Your task to perform on an android device: search for starred emails in the gmail app Image 0: 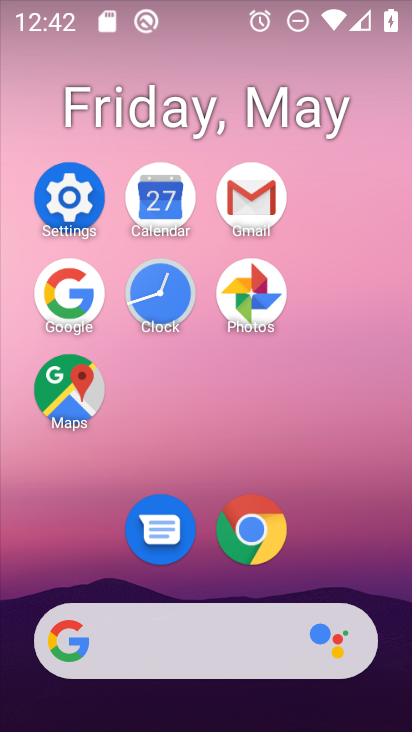
Step 0: click (241, 173)
Your task to perform on an android device: search for starred emails in the gmail app Image 1: 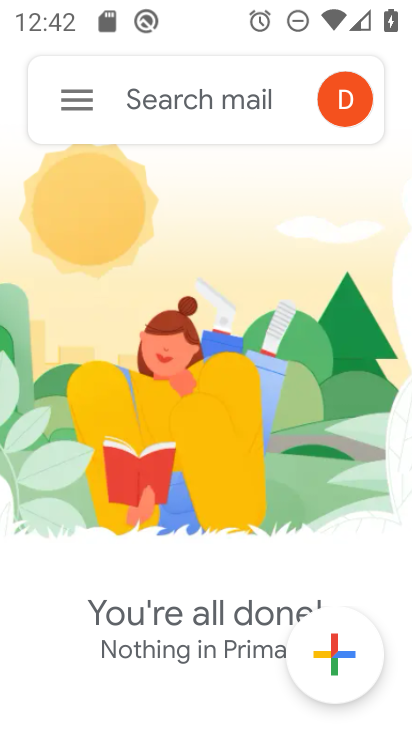
Step 1: click (85, 112)
Your task to perform on an android device: search for starred emails in the gmail app Image 2: 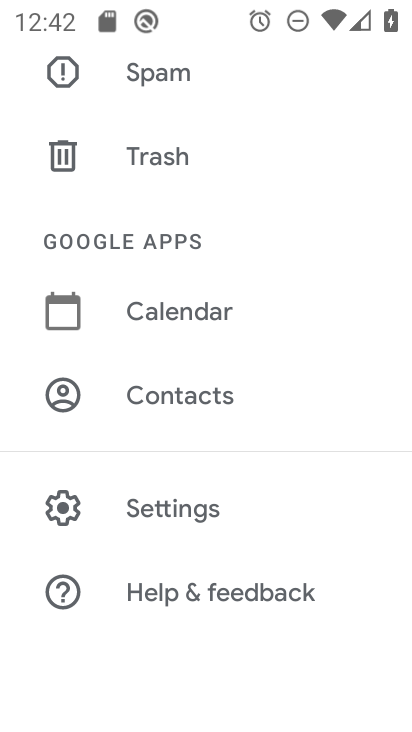
Step 2: drag from (146, 194) to (185, 591)
Your task to perform on an android device: search for starred emails in the gmail app Image 3: 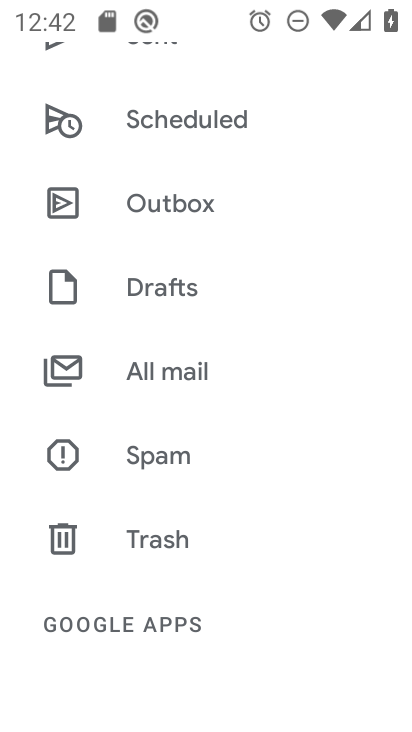
Step 3: drag from (258, 153) to (292, 536)
Your task to perform on an android device: search for starred emails in the gmail app Image 4: 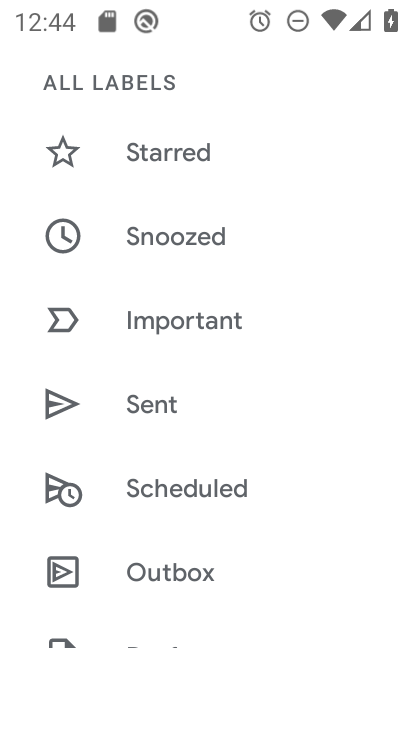
Step 4: click (299, 145)
Your task to perform on an android device: search for starred emails in the gmail app Image 5: 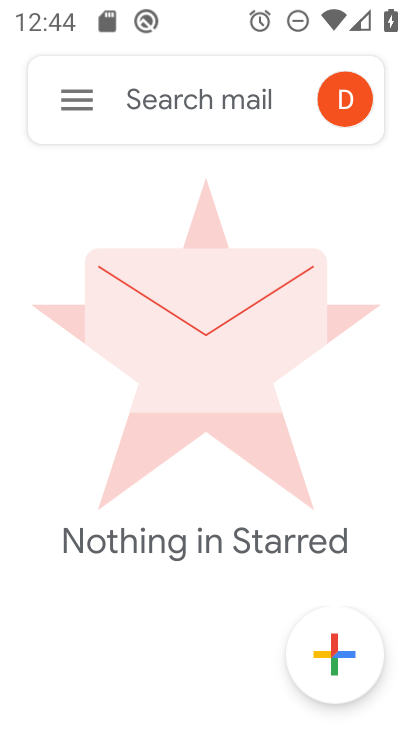
Step 5: task complete